Your task to perform on an android device: Go to wifi settings Image 0: 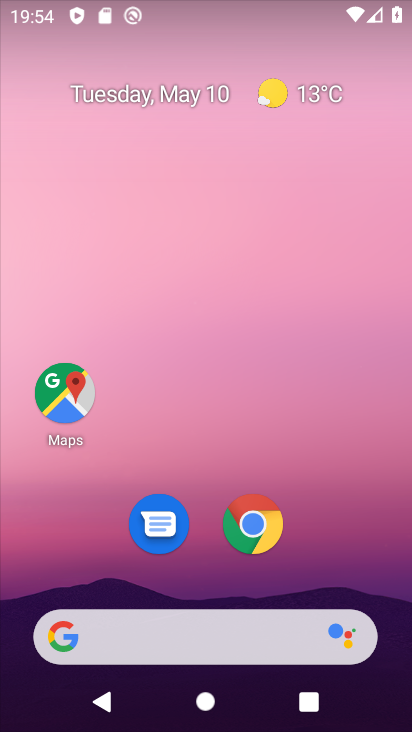
Step 0: drag from (362, 521) to (391, 178)
Your task to perform on an android device: Go to wifi settings Image 1: 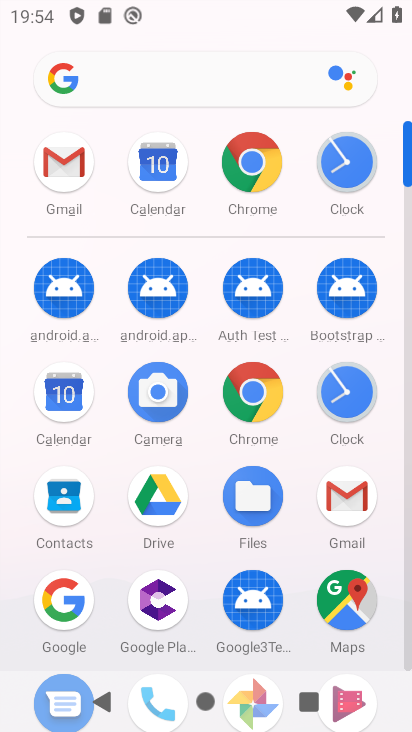
Step 1: drag from (235, 391) to (410, 212)
Your task to perform on an android device: Go to wifi settings Image 2: 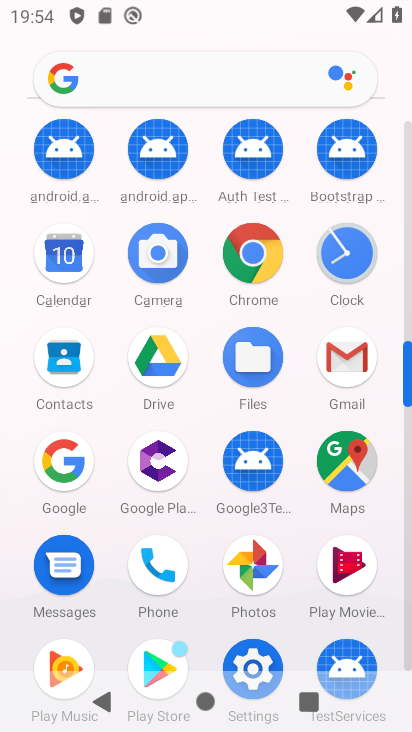
Step 2: click (257, 644)
Your task to perform on an android device: Go to wifi settings Image 3: 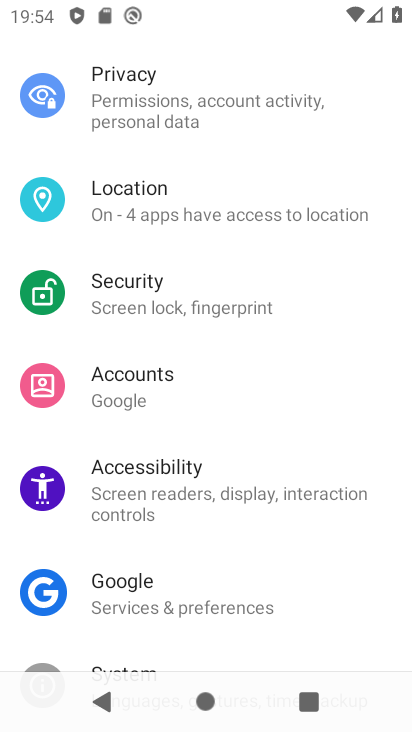
Step 3: drag from (233, 155) to (224, 572)
Your task to perform on an android device: Go to wifi settings Image 4: 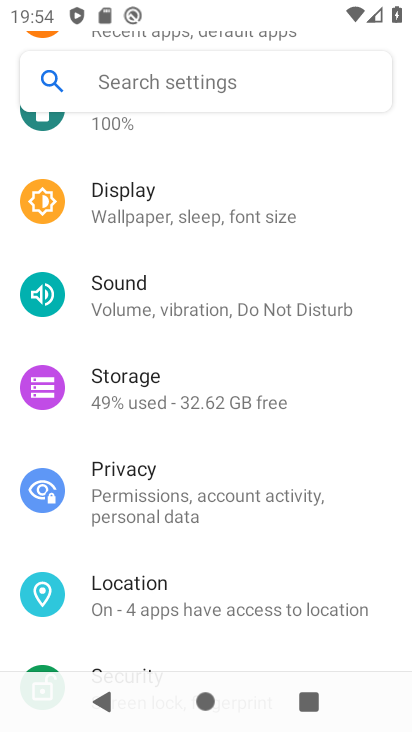
Step 4: drag from (214, 134) to (219, 578)
Your task to perform on an android device: Go to wifi settings Image 5: 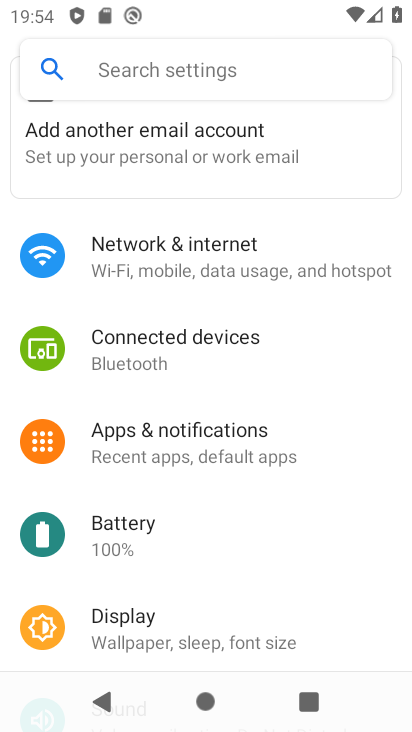
Step 5: click (196, 249)
Your task to perform on an android device: Go to wifi settings Image 6: 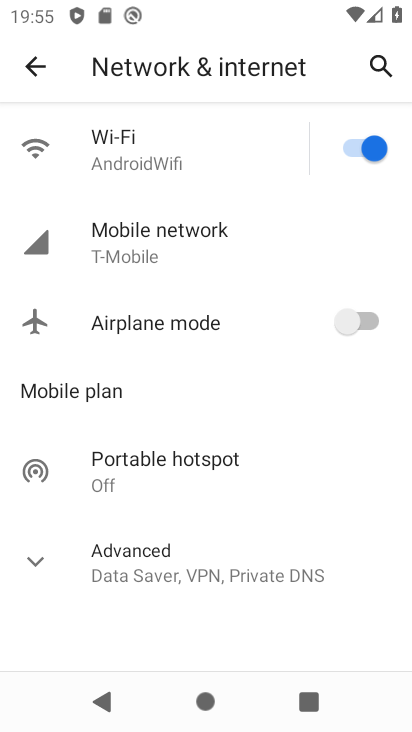
Step 6: click (161, 149)
Your task to perform on an android device: Go to wifi settings Image 7: 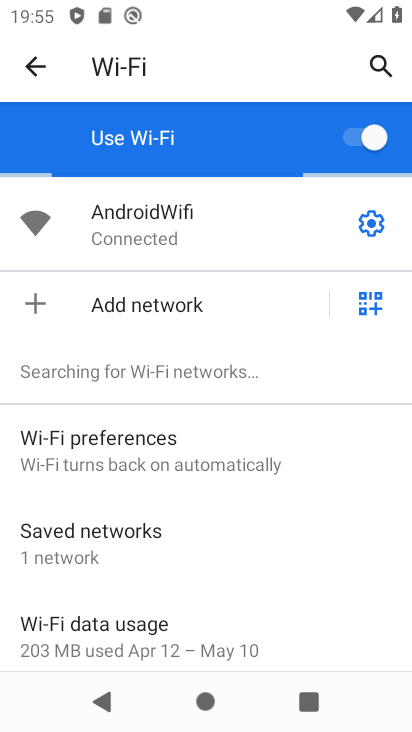
Step 7: task complete